Your task to perform on an android device: make emails show in primary in the gmail app Image 0: 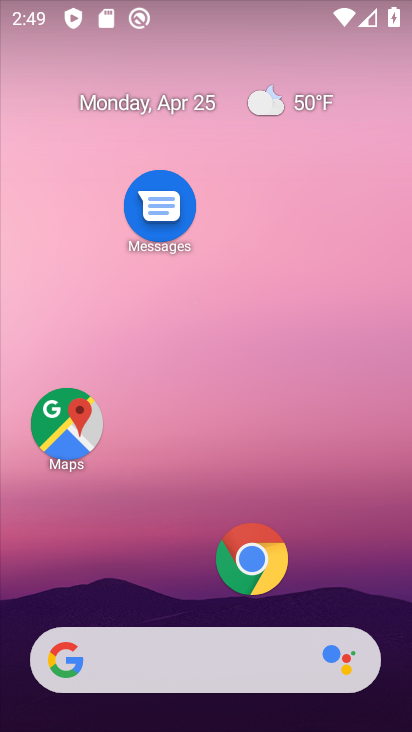
Step 0: drag from (169, 568) to (285, 73)
Your task to perform on an android device: make emails show in primary in the gmail app Image 1: 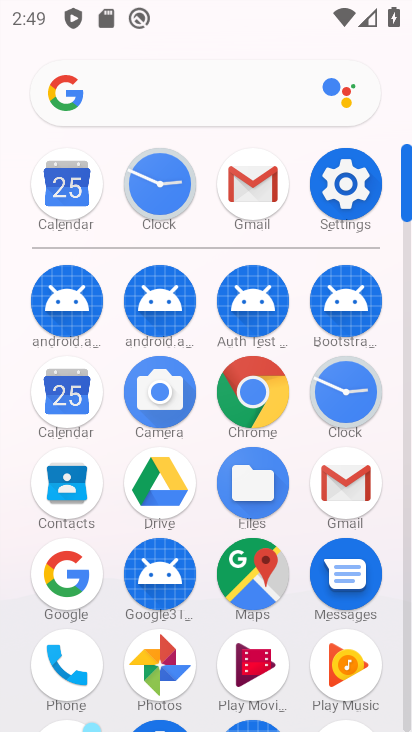
Step 1: click (353, 476)
Your task to perform on an android device: make emails show in primary in the gmail app Image 2: 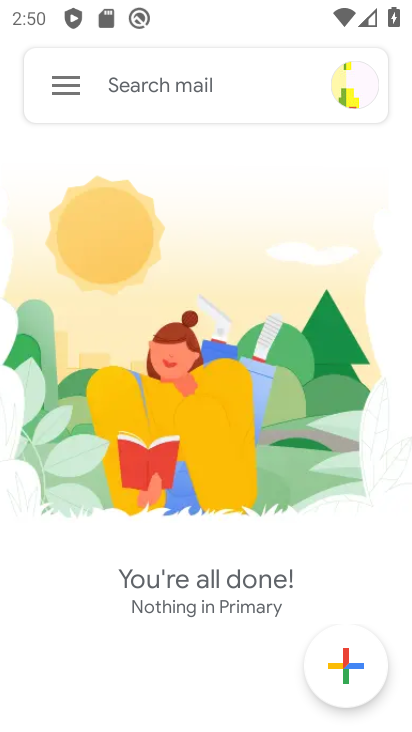
Step 2: click (45, 96)
Your task to perform on an android device: make emails show in primary in the gmail app Image 3: 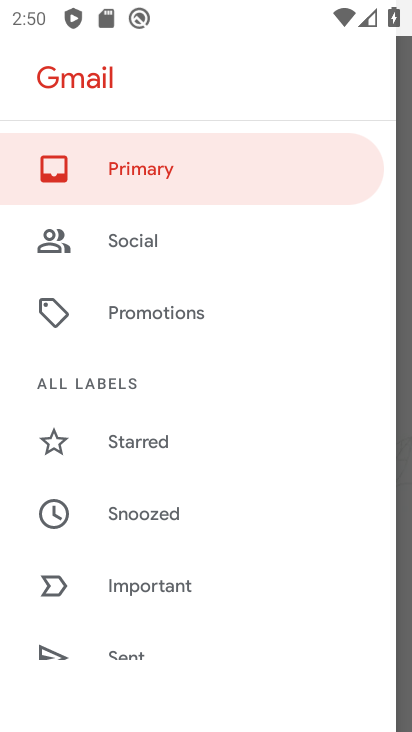
Step 3: drag from (112, 574) to (251, 2)
Your task to perform on an android device: make emails show in primary in the gmail app Image 4: 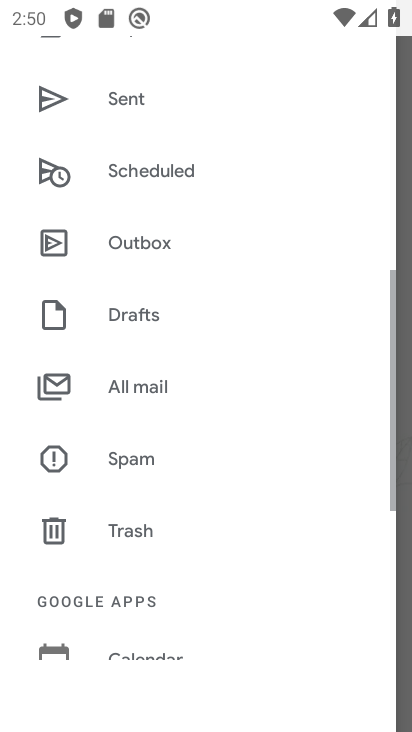
Step 4: drag from (133, 501) to (261, 15)
Your task to perform on an android device: make emails show in primary in the gmail app Image 5: 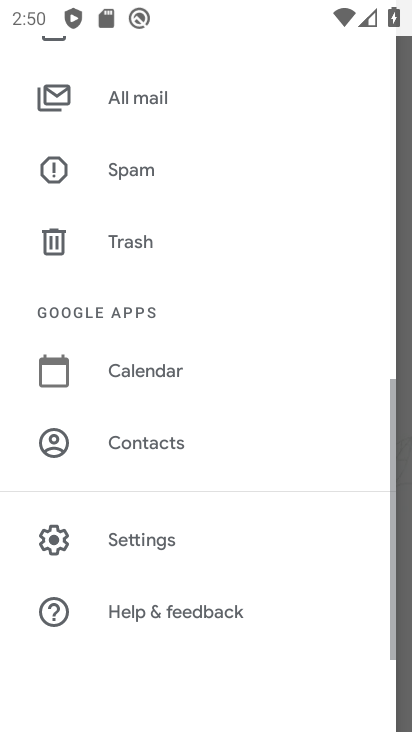
Step 5: click (161, 549)
Your task to perform on an android device: make emails show in primary in the gmail app Image 6: 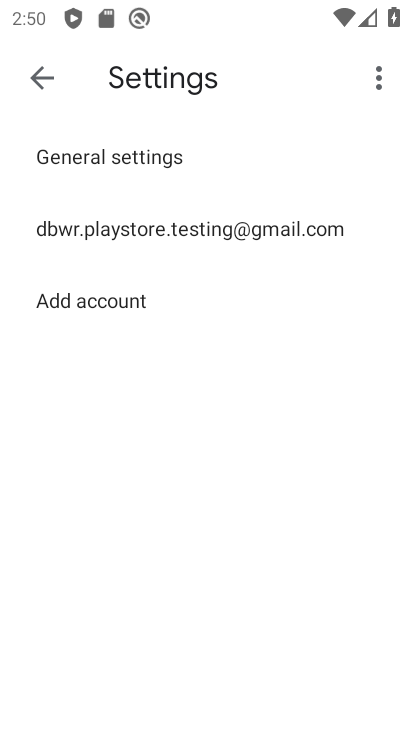
Step 6: click (154, 230)
Your task to perform on an android device: make emails show in primary in the gmail app Image 7: 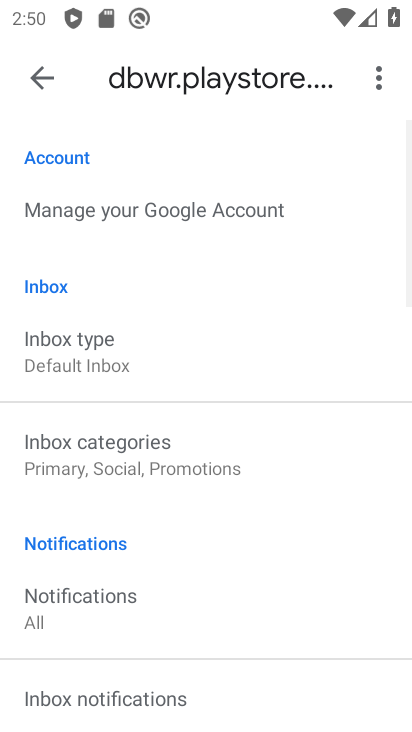
Step 7: click (116, 457)
Your task to perform on an android device: make emails show in primary in the gmail app Image 8: 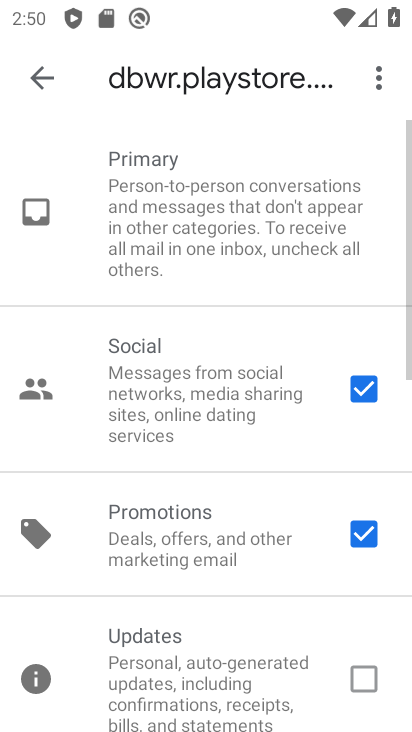
Step 8: click (370, 388)
Your task to perform on an android device: make emails show in primary in the gmail app Image 9: 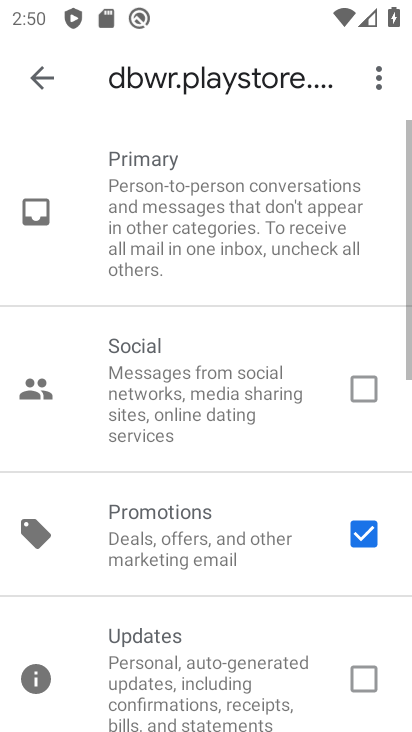
Step 9: click (361, 538)
Your task to perform on an android device: make emails show in primary in the gmail app Image 10: 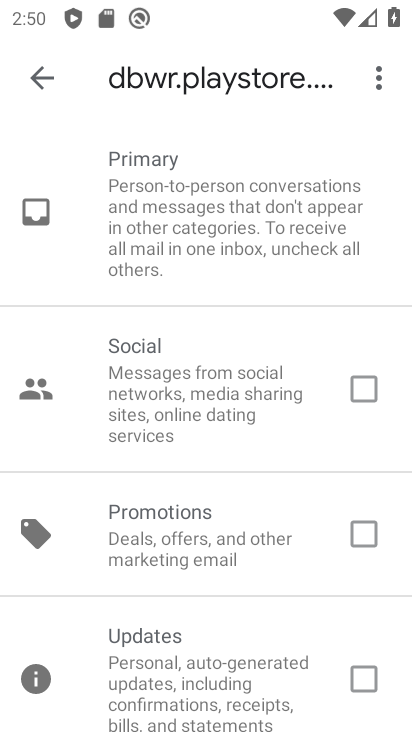
Step 10: task complete